Your task to perform on an android device: check battery use Image 0: 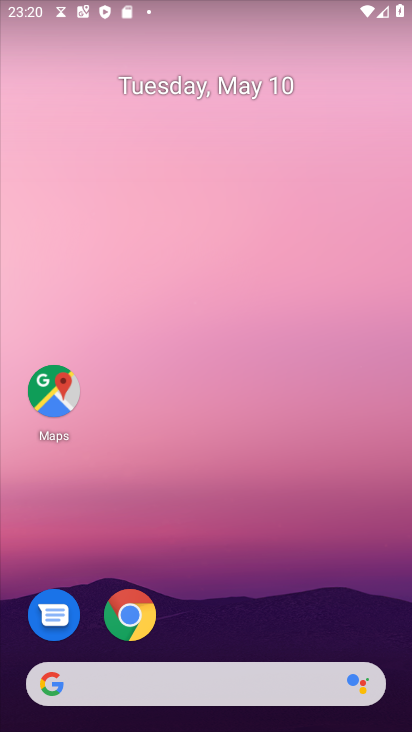
Step 0: drag from (241, 583) to (188, 104)
Your task to perform on an android device: check battery use Image 1: 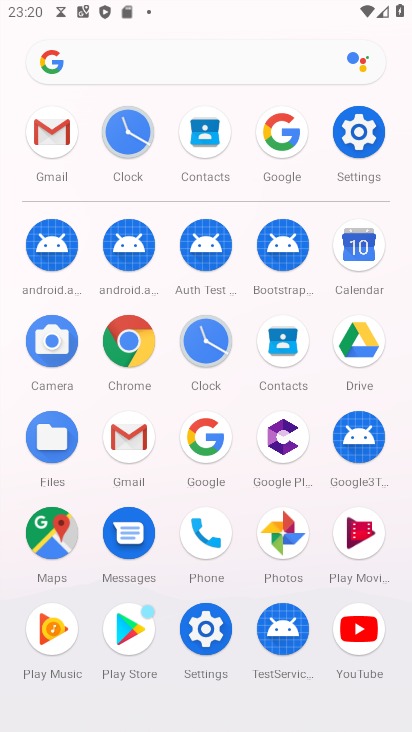
Step 1: click (357, 133)
Your task to perform on an android device: check battery use Image 2: 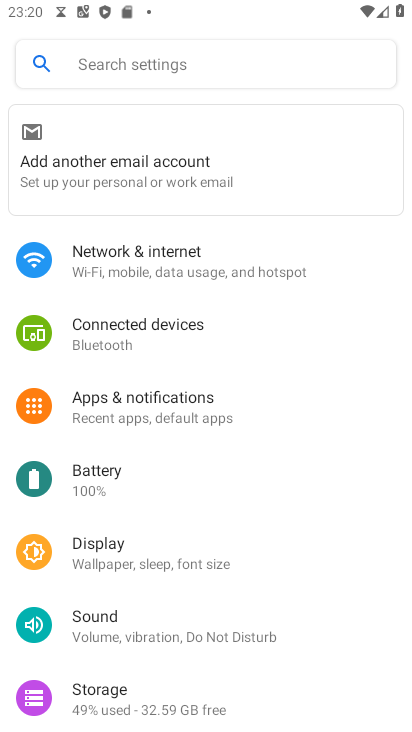
Step 2: click (123, 470)
Your task to perform on an android device: check battery use Image 3: 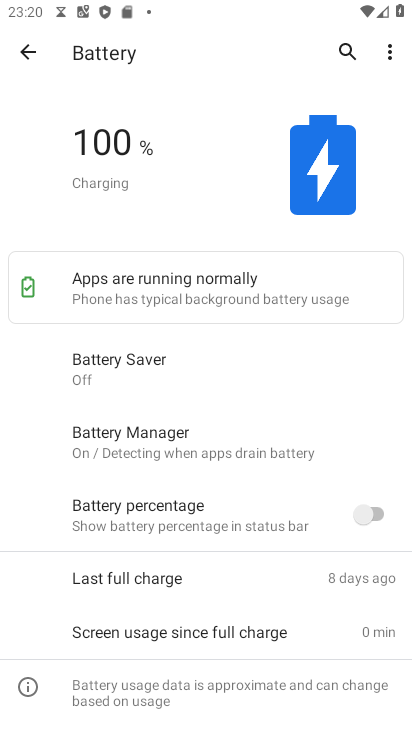
Step 3: click (390, 53)
Your task to perform on an android device: check battery use Image 4: 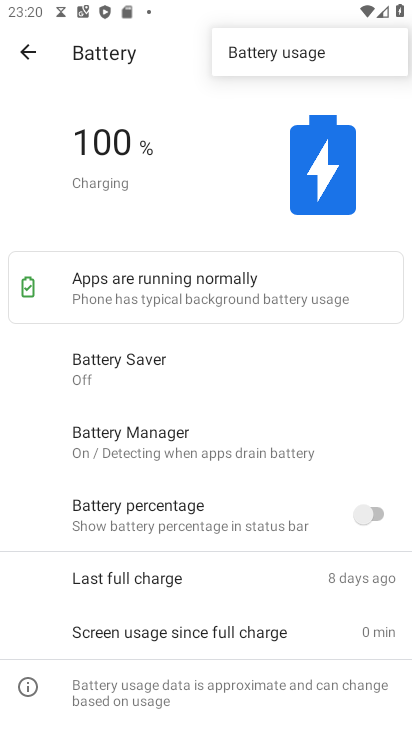
Step 4: click (313, 66)
Your task to perform on an android device: check battery use Image 5: 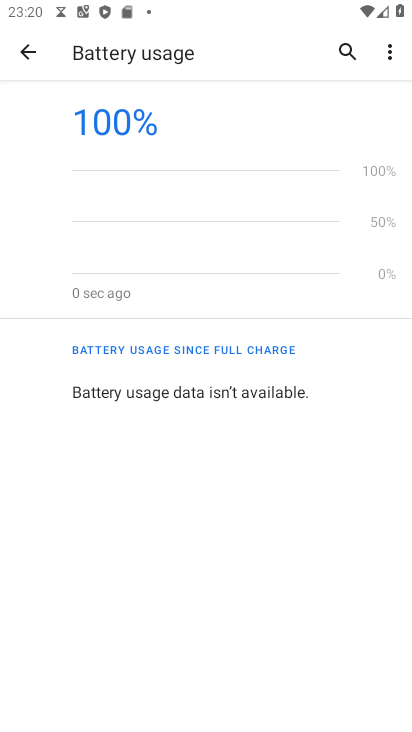
Step 5: task complete